Your task to perform on an android device: Find coffee shops on Maps Image 0: 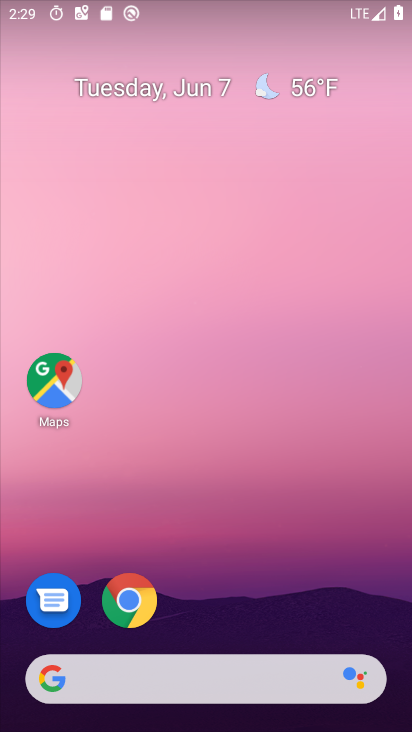
Step 0: click (61, 372)
Your task to perform on an android device: Find coffee shops on Maps Image 1: 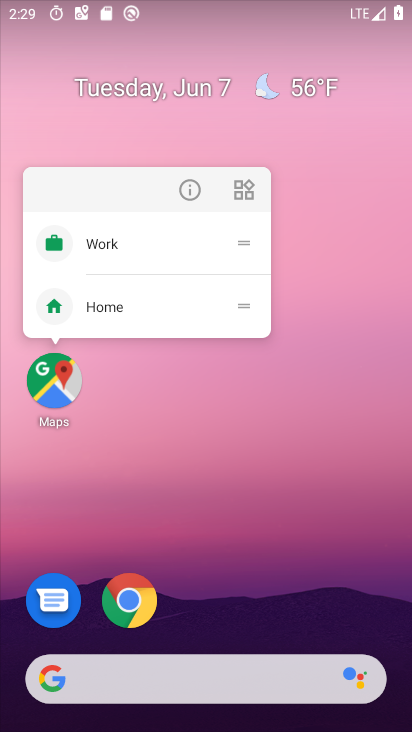
Step 1: click (60, 374)
Your task to perform on an android device: Find coffee shops on Maps Image 2: 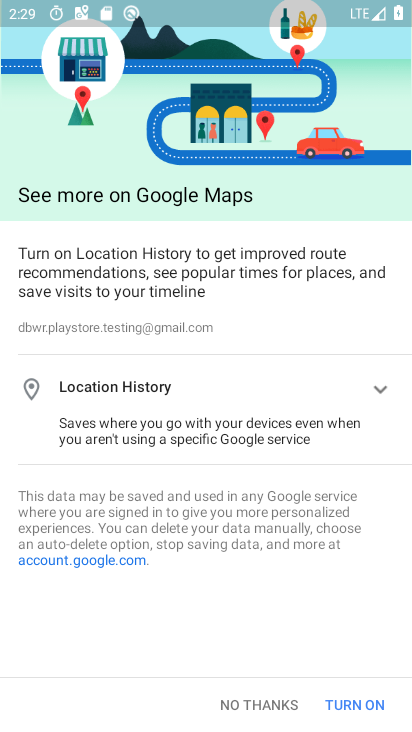
Step 2: click (316, 61)
Your task to perform on an android device: Find coffee shops on Maps Image 3: 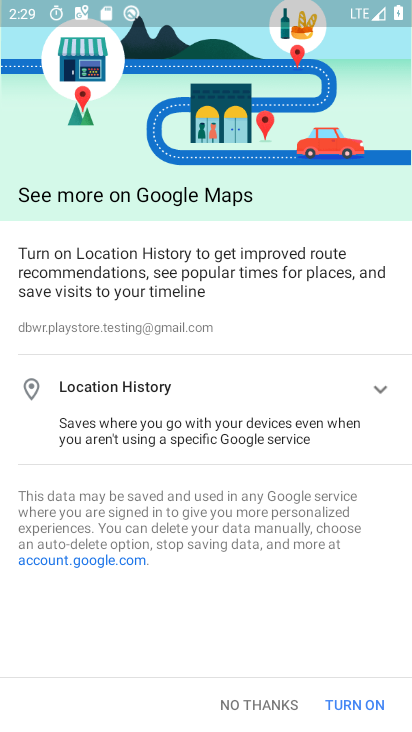
Step 3: click (274, 708)
Your task to perform on an android device: Find coffee shops on Maps Image 4: 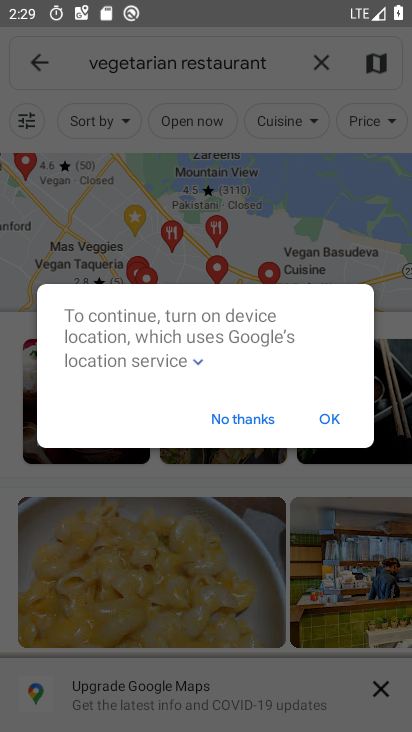
Step 4: click (230, 417)
Your task to perform on an android device: Find coffee shops on Maps Image 5: 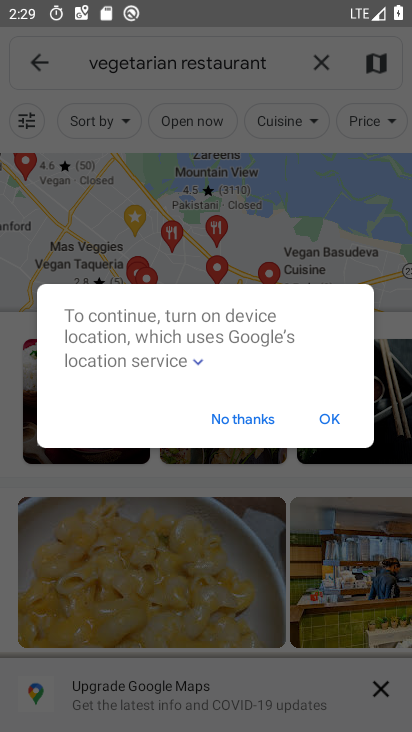
Step 5: click (244, 421)
Your task to perform on an android device: Find coffee shops on Maps Image 6: 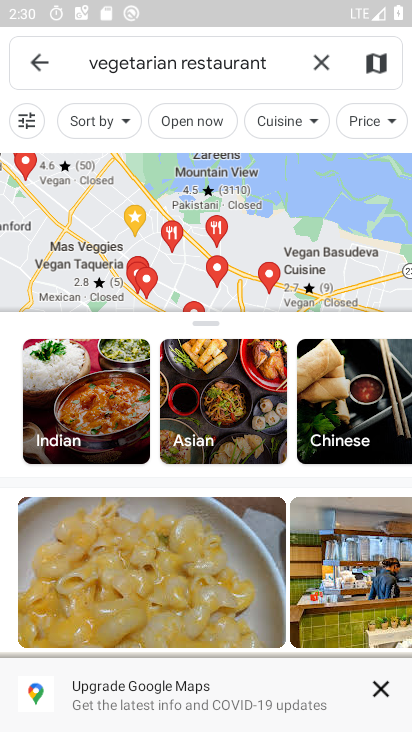
Step 6: click (320, 62)
Your task to perform on an android device: Find coffee shops on Maps Image 7: 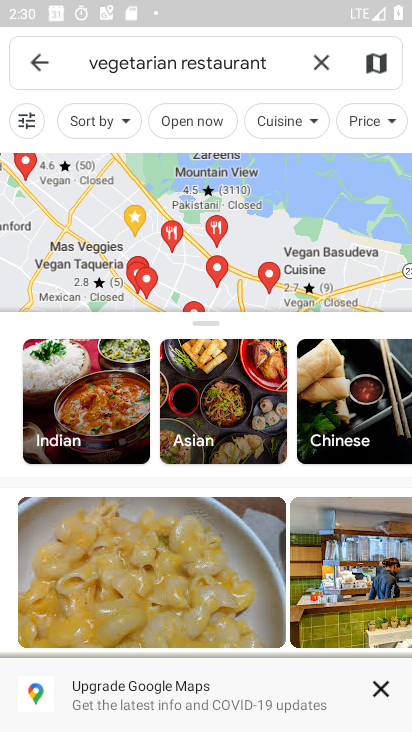
Step 7: type "coffee shops"
Your task to perform on an android device: Find coffee shops on Maps Image 8: 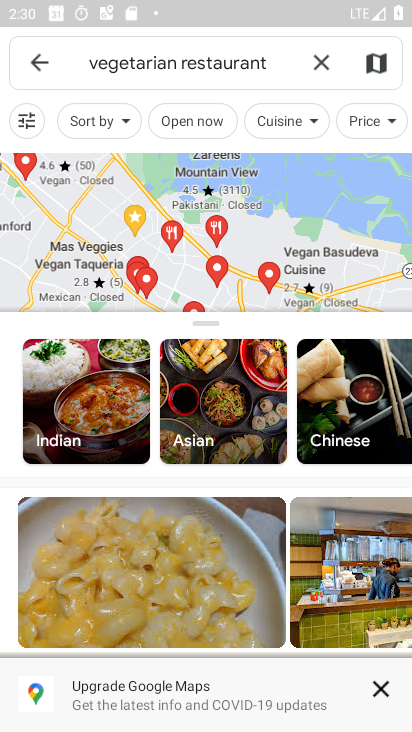
Step 8: click (317, 65)
Your task to perform on an android device: Find coffee shops on Maps Image 9: 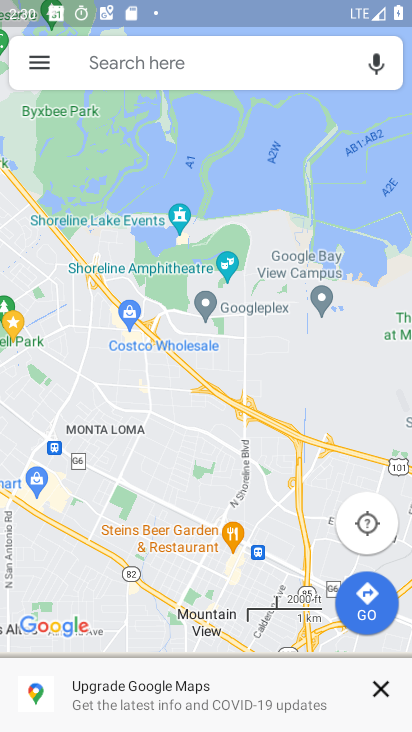
Step 9: click (203, 60)
Your task to perform on an android device: Find coffee shops on Maps Image 10: 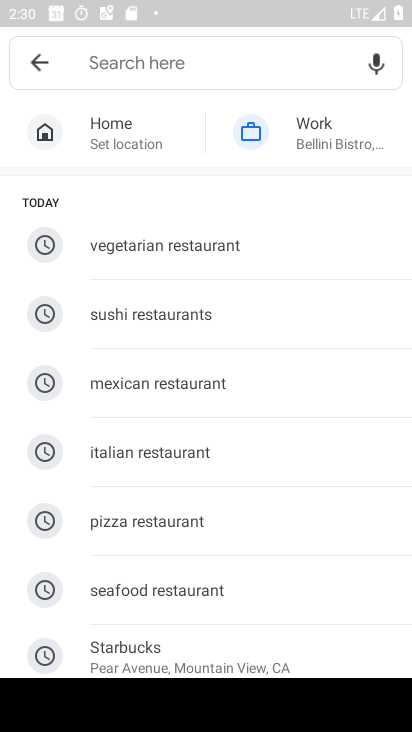
Step 10: type "coffee shops"
Your task to perform on an android device: Find coffee shops on Maps Image 11: 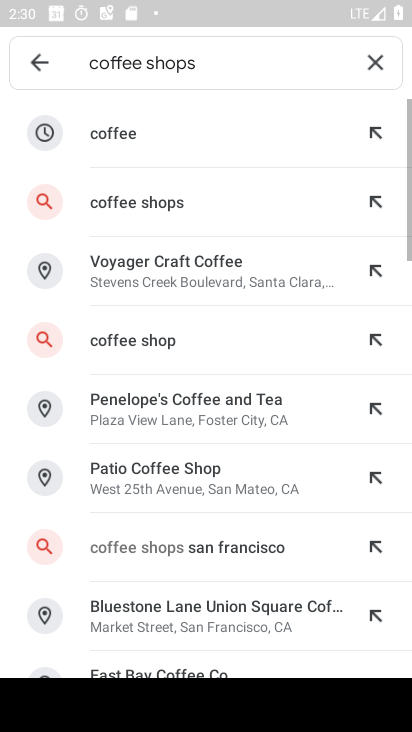
Step 11: click (191, 211)
Your task to perform on an android device: Find coffee shops on Maps Image 12: 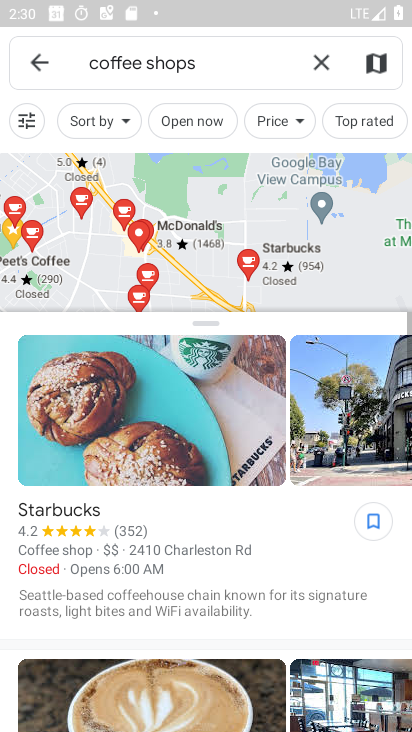
Step 12: task complete